Your task to perform on an android device: Open Yahoo.com Image 0: 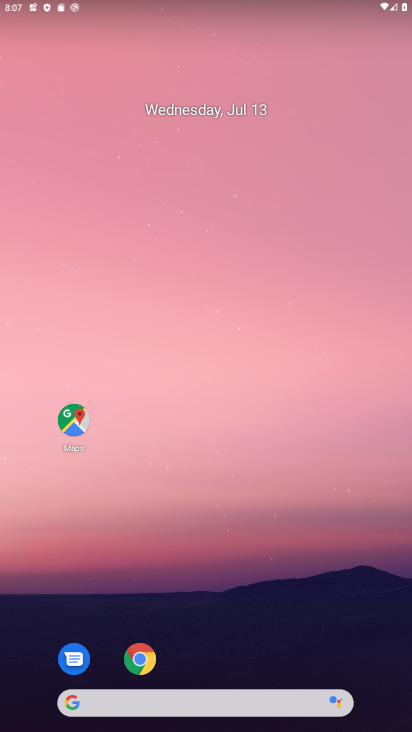
Step 0: click (141, 669)
Your task to perform on an android device: Open Yahoo.com Image 1: 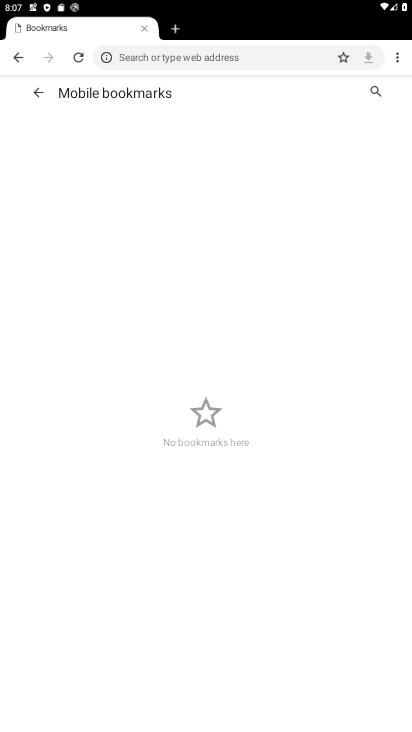
Step 1: click (176, 26)
Your task to perform on an android device: Open Yahoo.com Image 2: 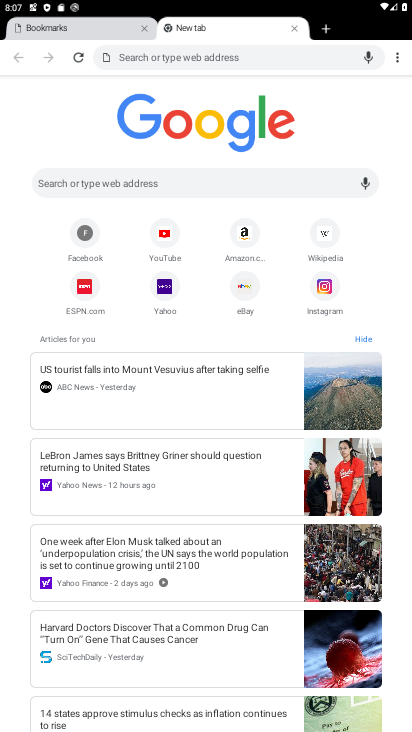
Step 2: click (171, 298)
Your task to perform on an android device: Open Yahoo.com Image 3: 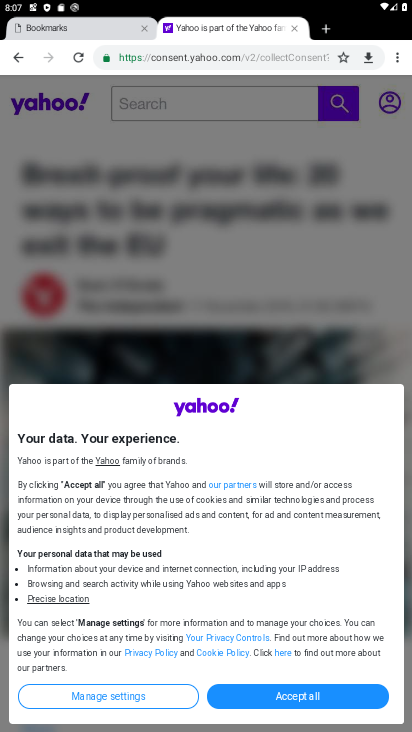
Step 3: click (253, 702)
Your task to perform on an android device: Open Yahoo.com Image 4: 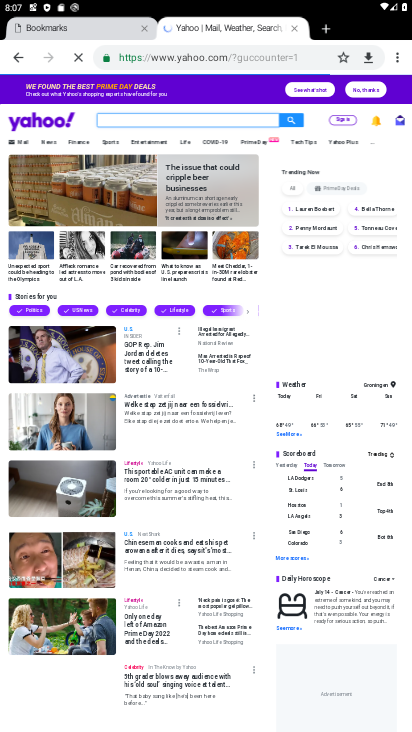
Step 4: task complete